Your task to perform on an android device: refresh tabs in the chrome app Image 0: 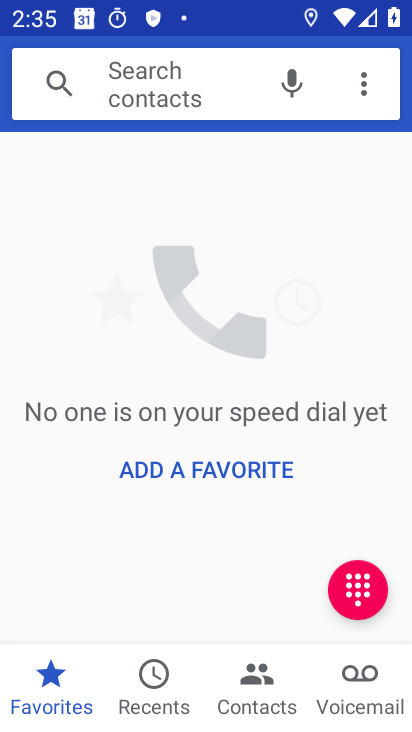
Step 0: press back button
Your task to perform on an android device: refresh tabs in the chrome app Image 1: 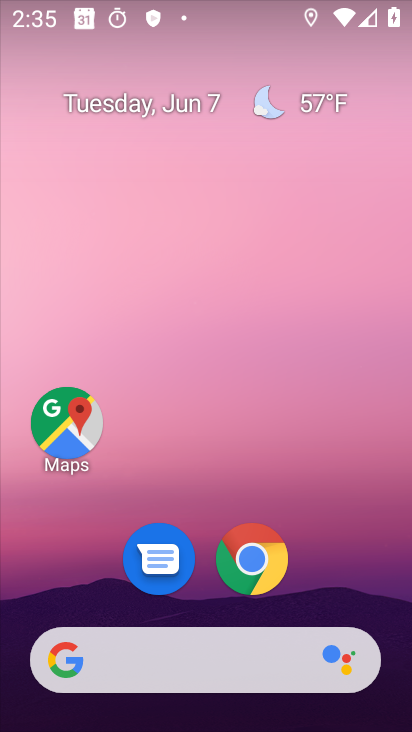
Step 1: drag from (336, 566) to (266, 11)
Your task to perform on an android device: refresh tabs in the chrome app Image 2: 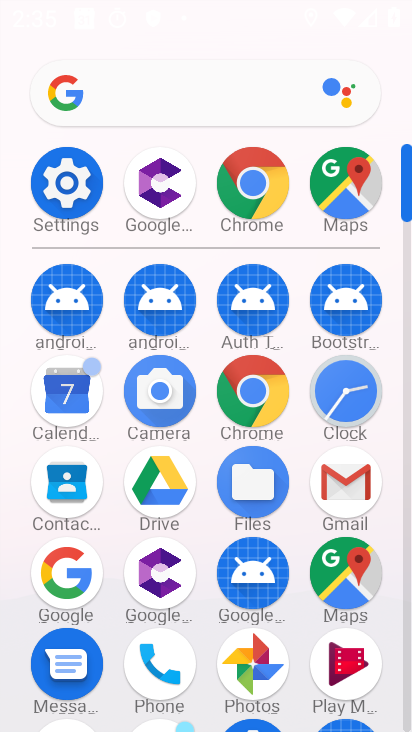
Step 2: click (251, 170)
Your task to perform on an android device: refresh tabs in the chrome app Image 3: 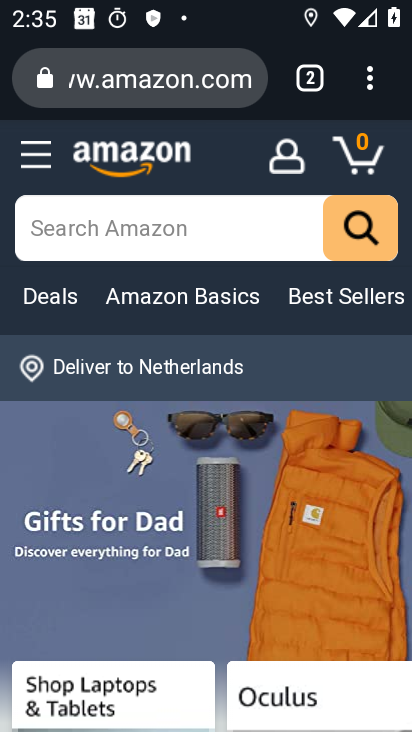
Step 3: click (368, 78)
Your task to perform on an android device: refresh tabs in the chrome app Image 4: 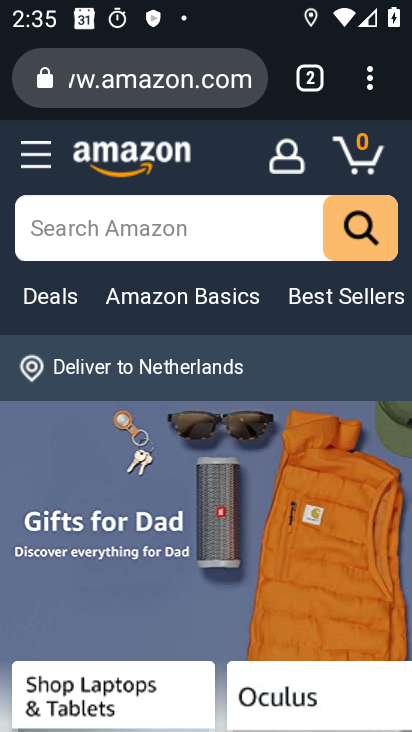
Step 4: task complete